Your task to perform on an android device: move a message to another label in the gmail app Image 0: 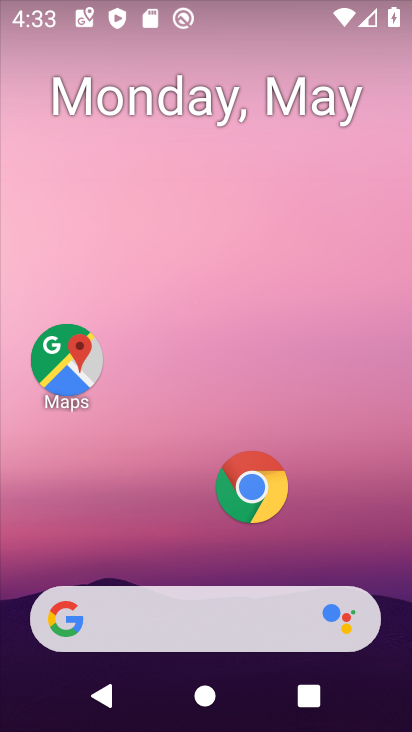
Step 0: drag from (170, 725) to (211, 55)
Your task to perform on an android device: move a message to another label in the gmail app Image 1: 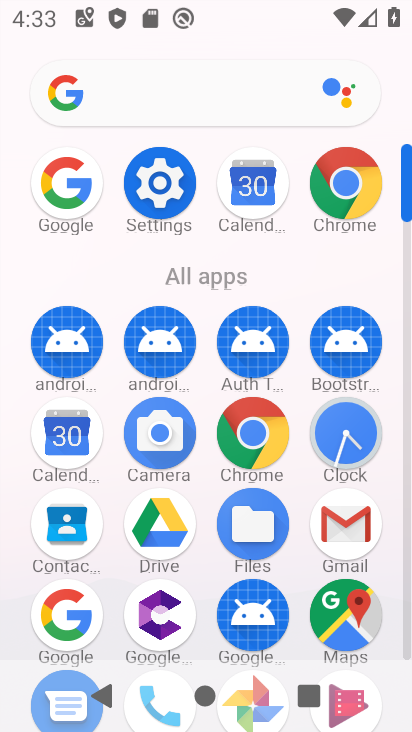
Step 1: click (361, 526)
Your task to perform on an android device: move a message to another label in the gmail app Image 2: 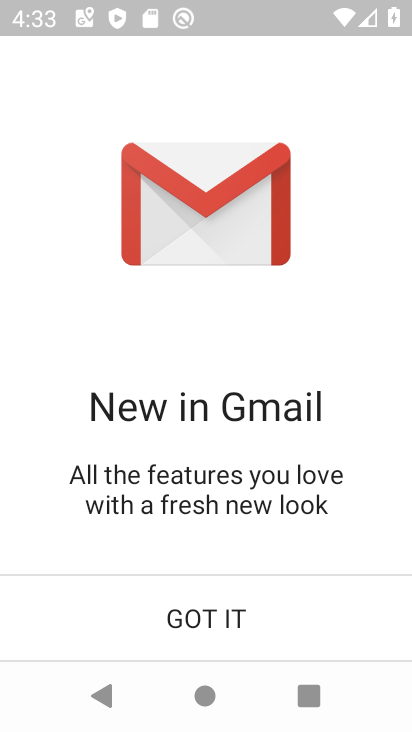
Step 2: click (225, 632)
Your task to perform on an android device: move a message to another label in the gmail app Image 3: 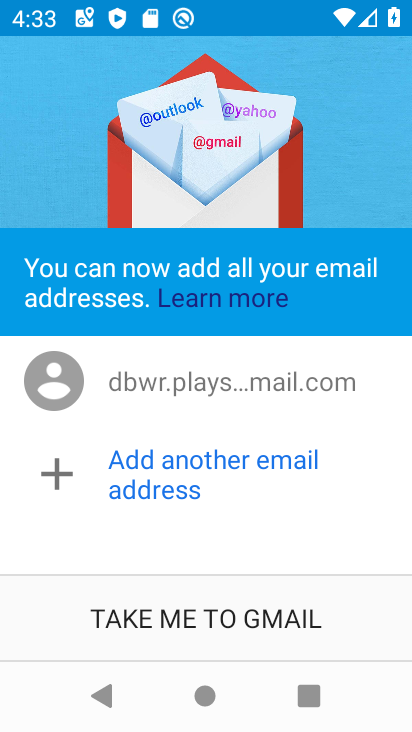
Step 3: click (228, 649)
Your task to perform on an android device: move a message to another label in the gmail app Image 4: 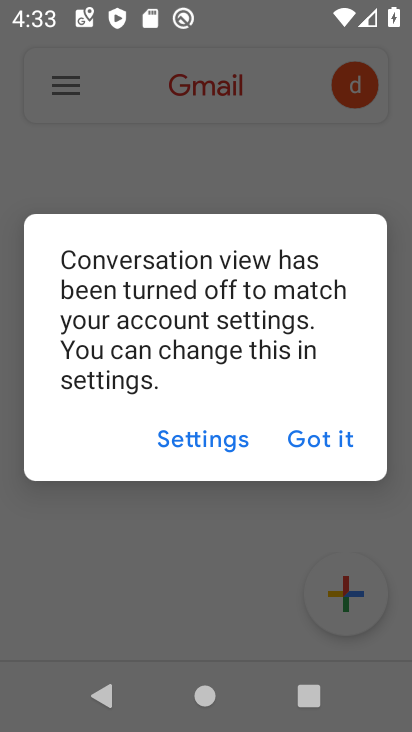
Step 4: click (321, 449)
Your task to perform on an android device: move a message to another label in the gmail app Image 5: 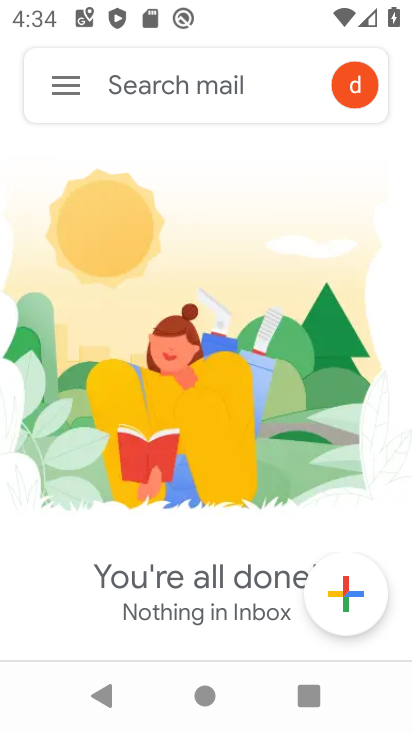
Step 5: click (59, 90)
Your task to perform on an android device: move a message to another label in the gmail app Image 6: 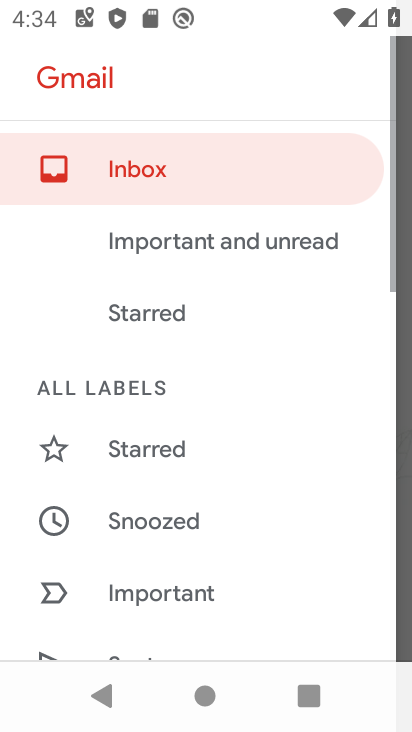
Step 6: drag from (253, 594) to (253, 190)
Your task to perform on an android device: move a message to another label in the gmail app Image 7: 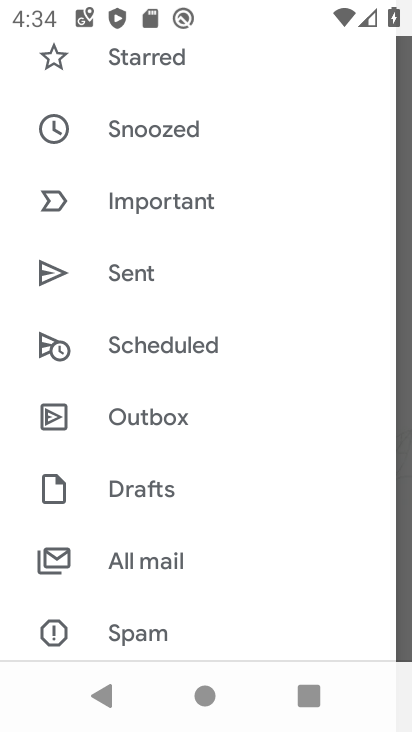
Step 7: click (195, 566)
Your task to perform on an android device: move a message to another label in the gmail app Image 8: 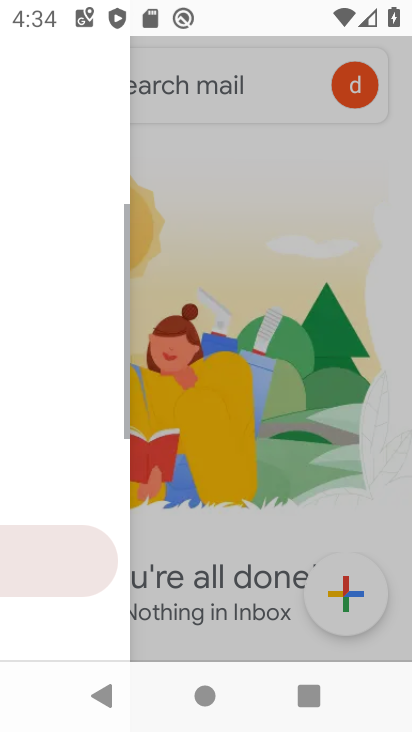
Step 8: click (195, 566)
Your task to perform on an android device: move a message to another label in the gmail app Image 9: 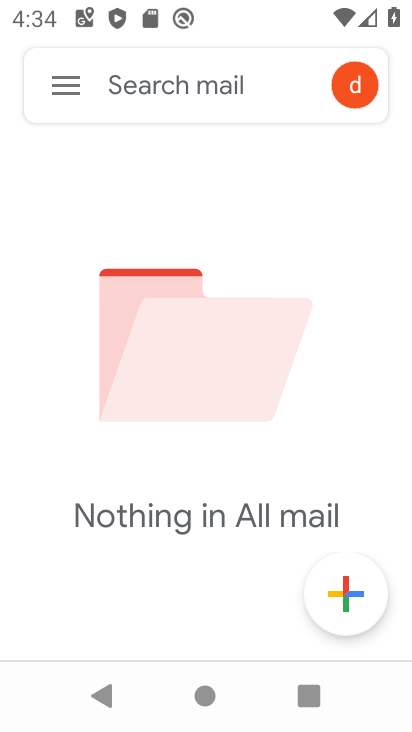
Step 9: task complete